Your task to perform on an android device: check google app version Image 0: 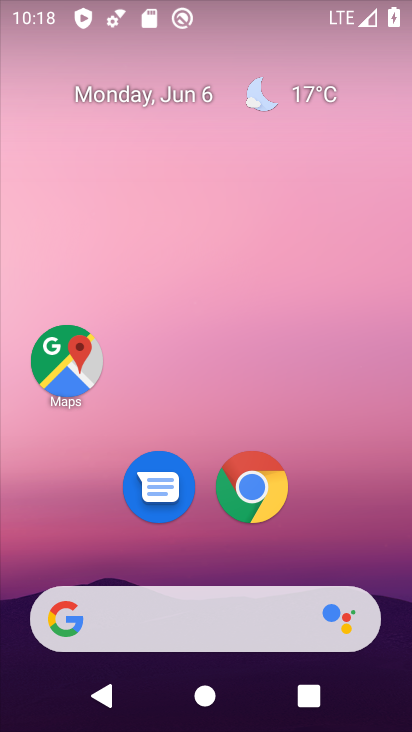
Step 0: drag from (382, 520) to (329, 292)
Your task to perform on an android device: check google app version Image 1: 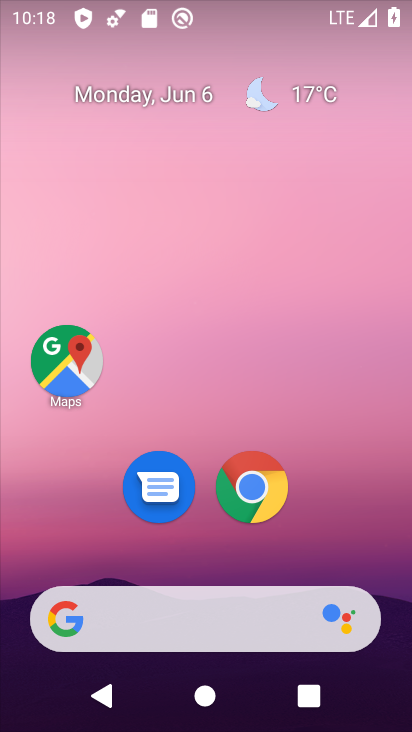
Step 1: drag from (355, 534) to (313, 2)
Your task to perform on an android device: check google app version Image 2: 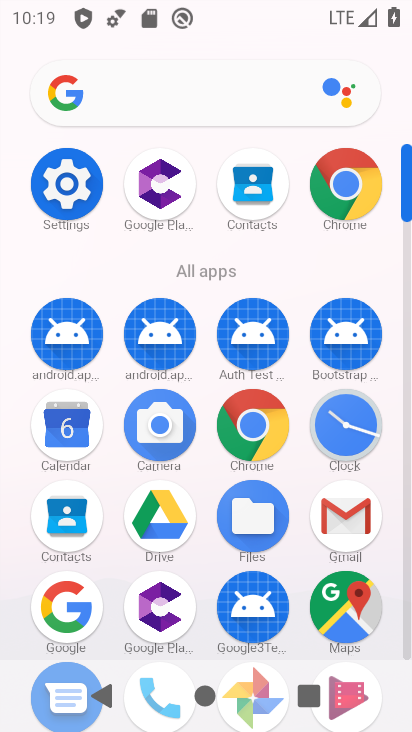
Step 2: click (63, 617)
Your task to perform on an android device: check google app version Image 3: 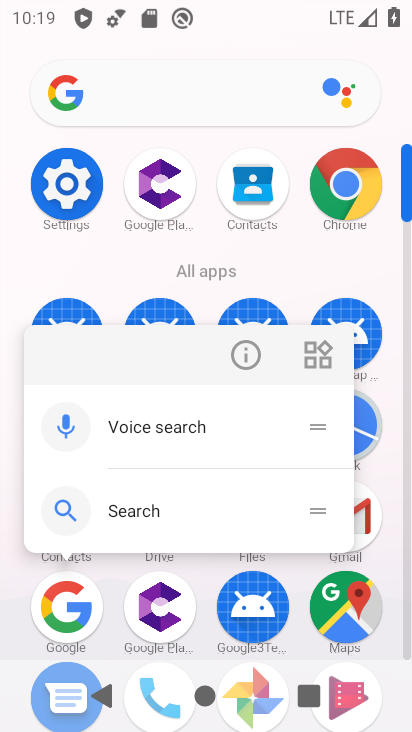
Step 3: click (242, 361)
Your task to perform on an android device: check google app version Image 4: 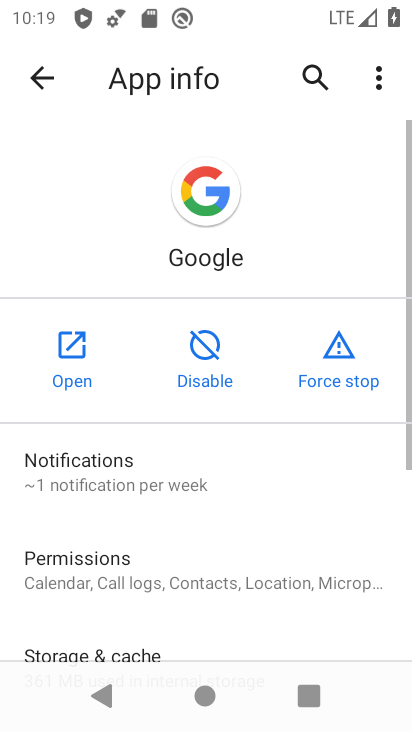
Step 4: drag from (210, 661) to (343, 169)
Your task to perform on an android device: check google app version Image 5: 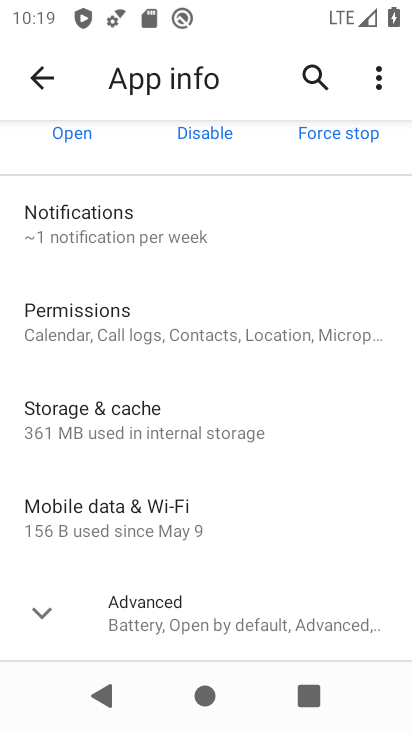
Step 5: click (244, 627)
Your task to perform on an android device: check google app version Image 6: 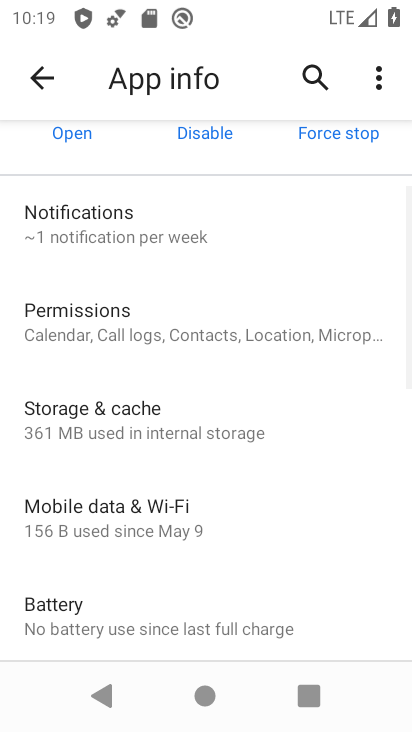
Step 6: task complete